Your task to perform on an android device: stop showing notifications on the lock screen Image 0: 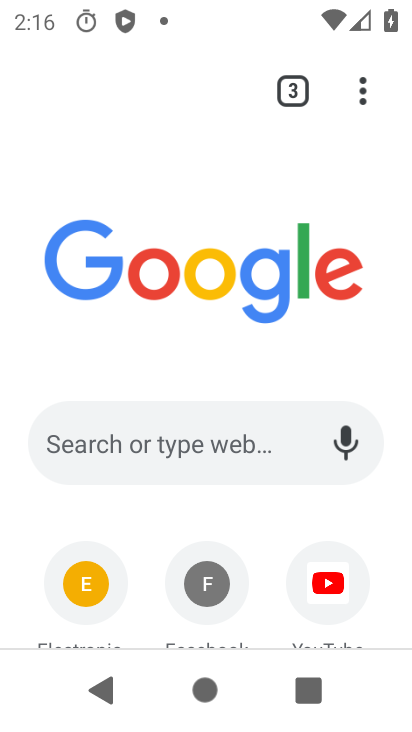
Step 0: press home button
Your task to perform on an android device: stop showing notifications on the lock screen Image 1: 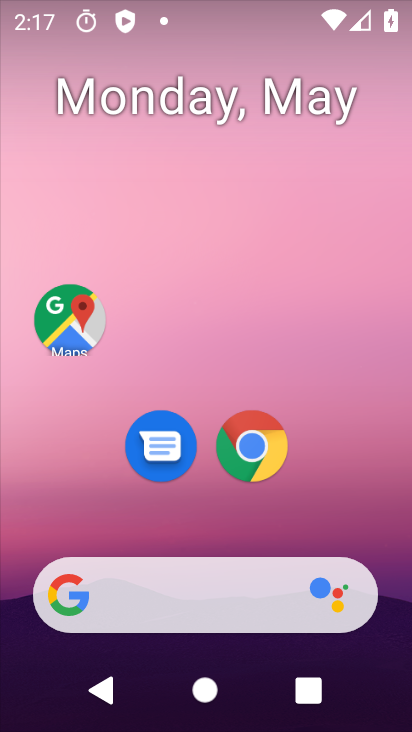
Step 1: drag from (211, 334) to (226, 191)
Your task to perform on an android device: stop showing notifications on the lock screen Image 2: 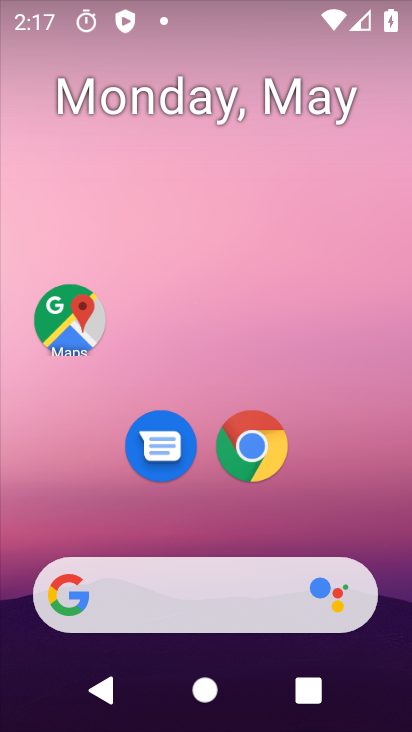
Step 2: drag from (197, 615) to (175, 39)
Your task to perform on an android device: stop showing notifications on the lock screen Image 3: 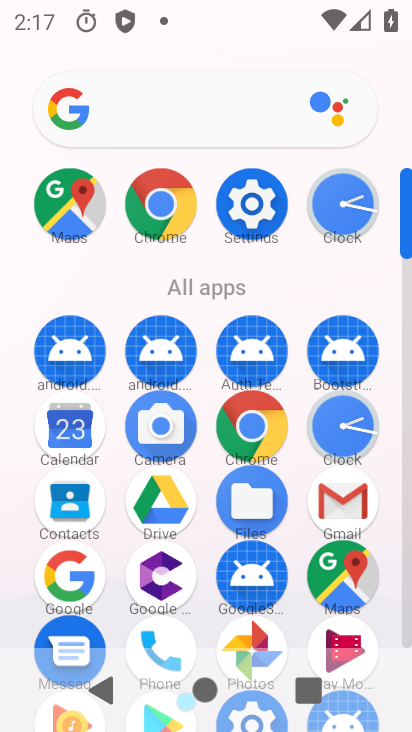
Step 3: click (257, 198)
Your task to perform on an android device: stop showing notifications on the lock screen Image 4: 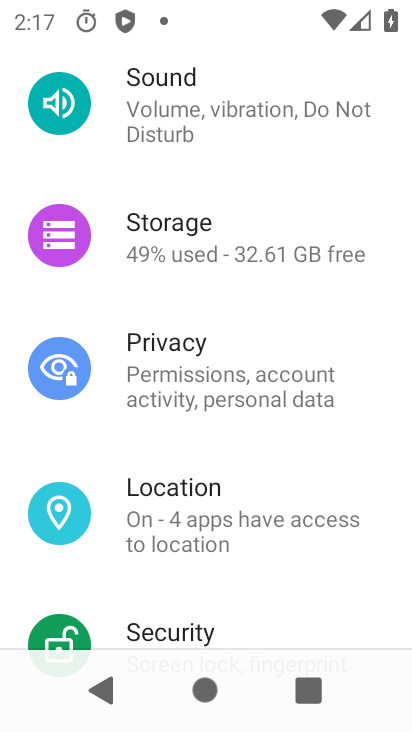
Step 4: drag from (217, 178) to (176, 480)
Your task to perform on an android device: stop showing notifications on the lock screen Image 5: 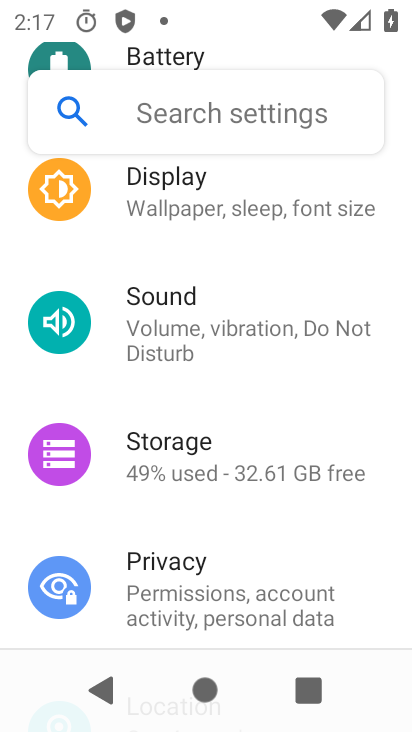
Step 5: drag from (183, 258) to (218, 603)
Your task to perform on an android device: stop showing notifications on the lock screen Image 6: 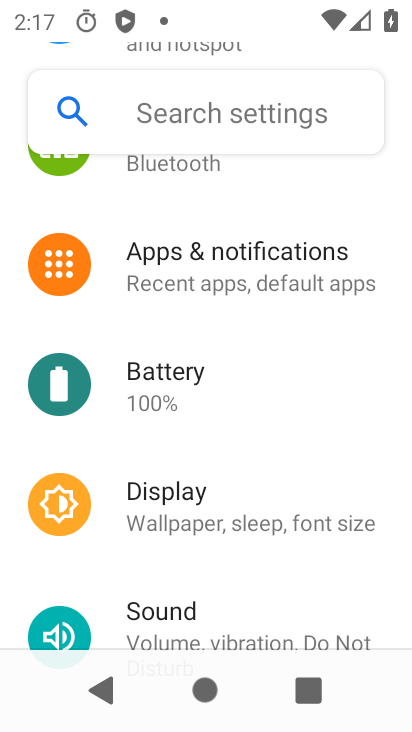
Step 6: click (222, 278)
Your task to perform on an android device: stop showing notifications on the lock screen Image 7: 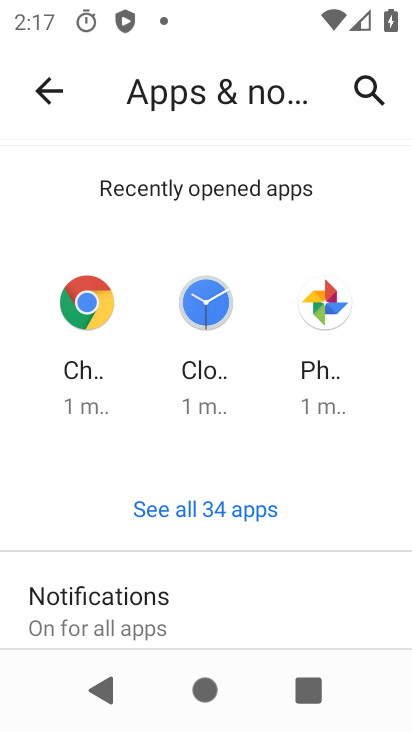
Step 7: click (171, 621)
Your task to perform on an android device: stop showing notifications on the lock screen Image 8: 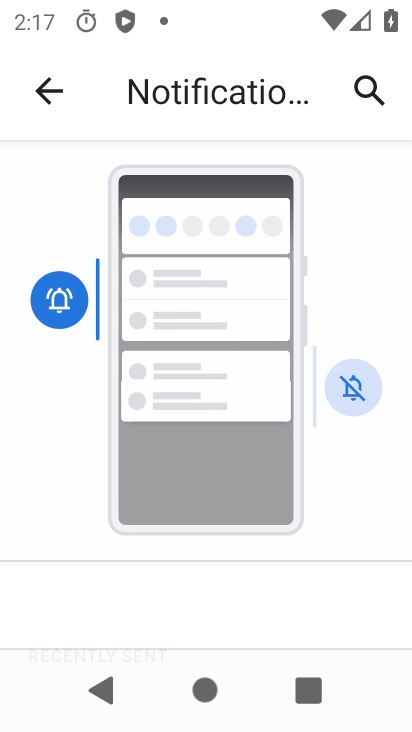
Step 8: drag from (197, 549) to (254, 194)
Your task to perform on an android device: stop showing notifications on the lock screen Image 9: 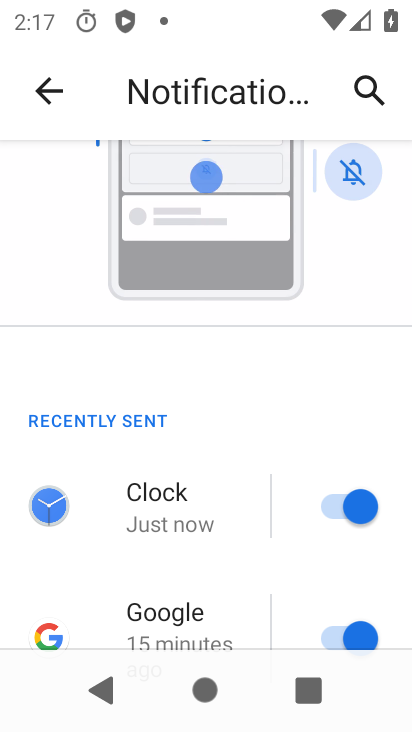
Step 9: drag from (138, 548) to (164, 40)
Your task to perform on an android device: stop showing notifications on the lock screen Image 10: 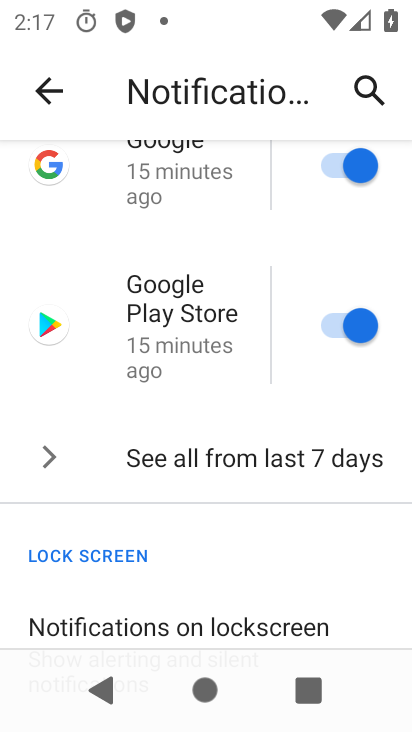
Step 10: click (162, 613)
Your task to perform on an android device: stop showing notifications on the lock screen Image 11: 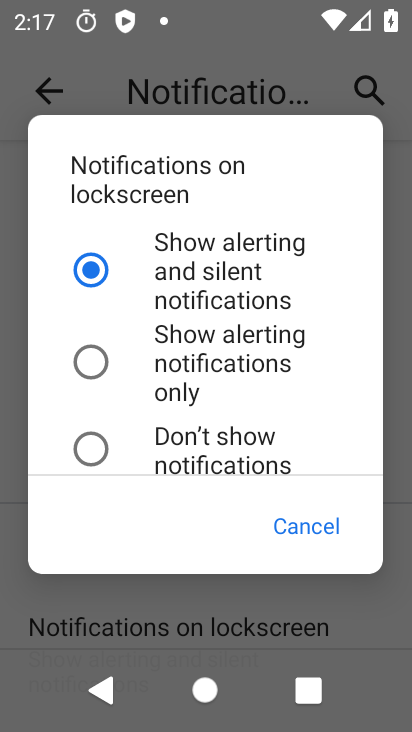
Step 11: click (173, 436)
Your task to perform on an android device: stop showing notifications on the lock screen Image 12: 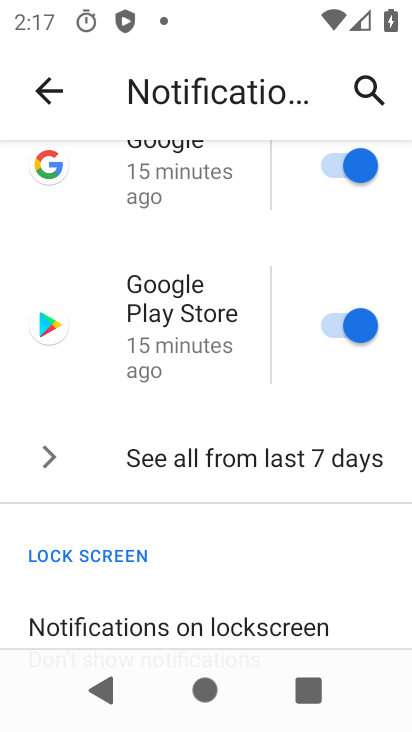
Step 12: task complete